Your task to perform on an android device: turn smart compose on in the gmail app Image 0: 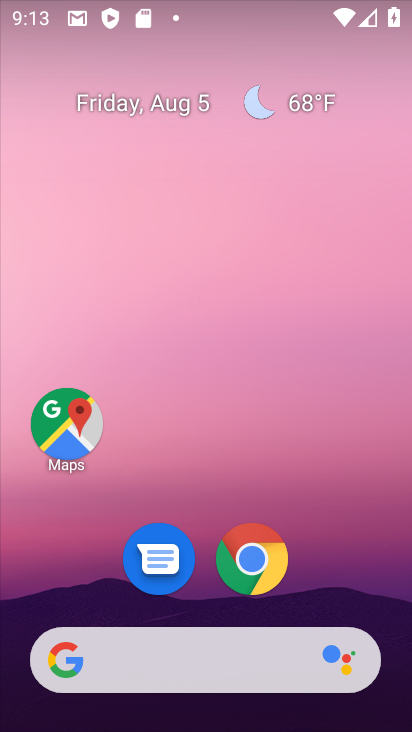
Step 0: drag from (256, 606) to (281, 106)
Your task to perform on an android device: turn smart compose on in the gmail app Image 1: 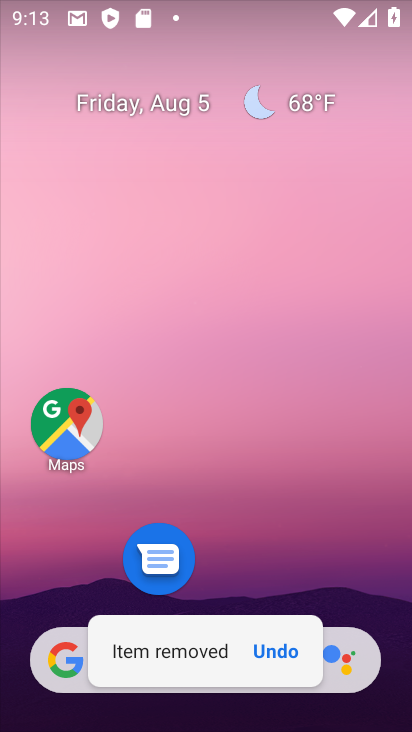
Step 1: drag from (279, 526) to (280, 115)
Your task to perform on an android device: turn smart compose on in the gmail app Image 2: 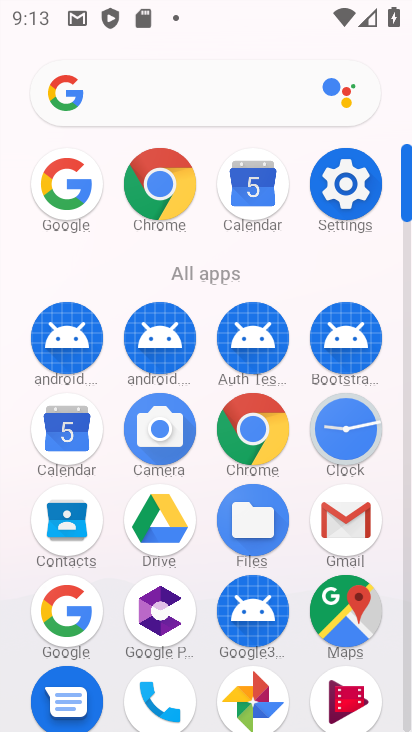
Step 2: click (344, 533)
Your task to perform on an android device: turn smart compose on in the gmail app Image 3: 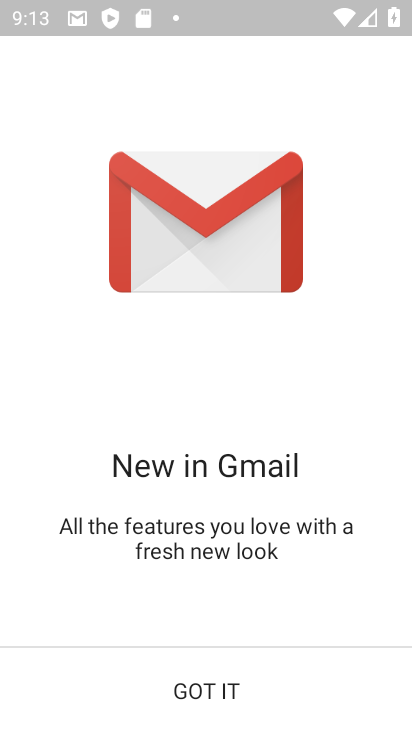
Step 3: click (211, 696)
Your task to perform on an android device: turn smart compose on in the gmail app Image 4: 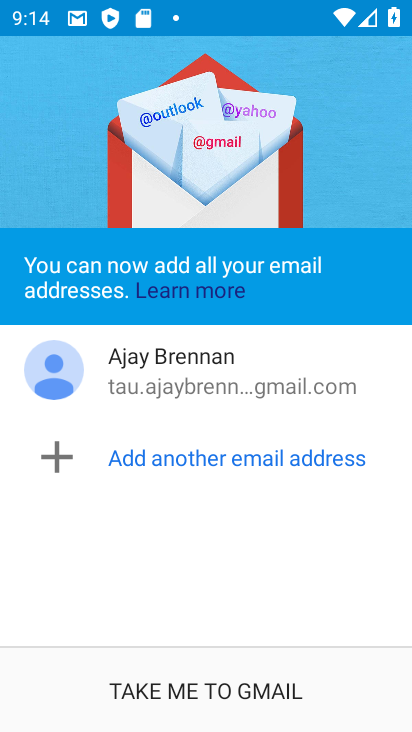
Step 4: click (208, 693)
Your task to perform on an android device: turn smart compose on in the gmail app Image 5: 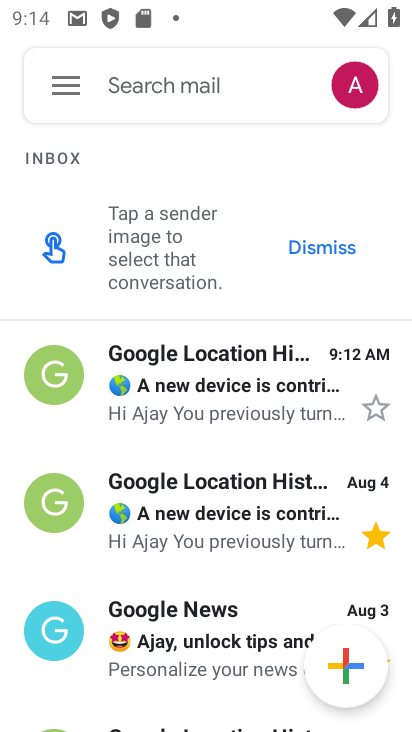
Step 5: click (61, 91)
Your task to perform on an android device: turn smart compose on in the gmail app Image 6: 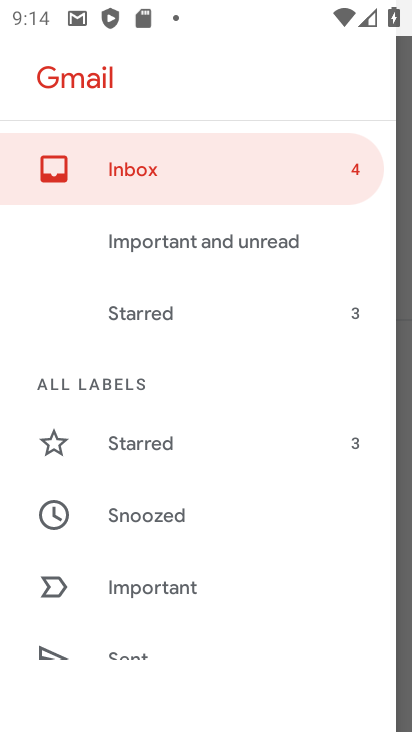
Step 6: drag from (199, 580) to (264, 123)
Your task to perform on an android device: turn smart compose on in the gmail app Image 7: 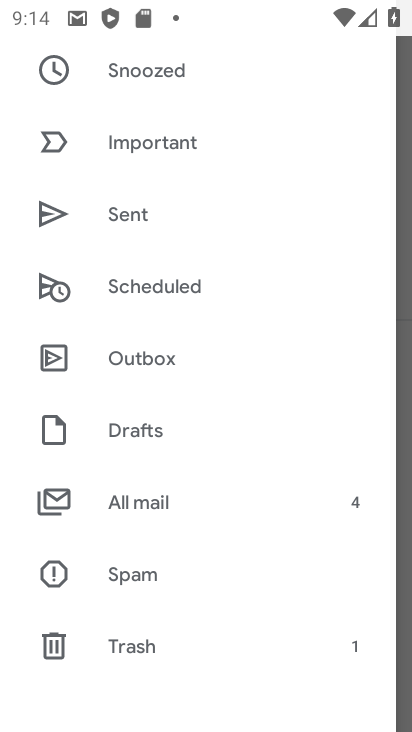
Step 7: drag from (205, 529) to (236, 193)
Your task to perform on an android device: turn smart compose on in the gmail app Image 8: 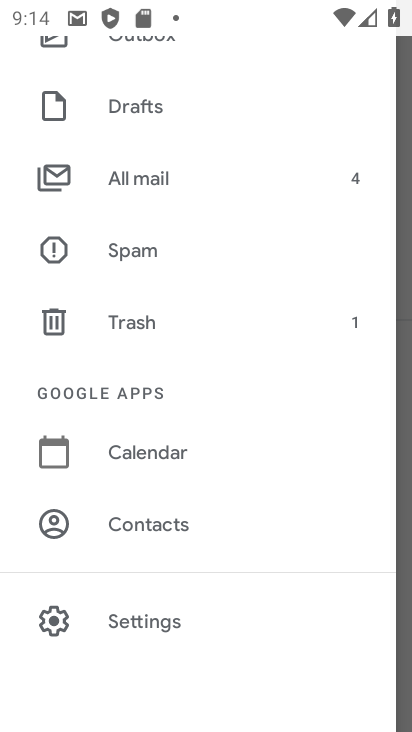
Step 8: drag from (205, 455) to (227, 111)
Your task to perform on an android device: turn smart compose on in the gmail app Image 9: 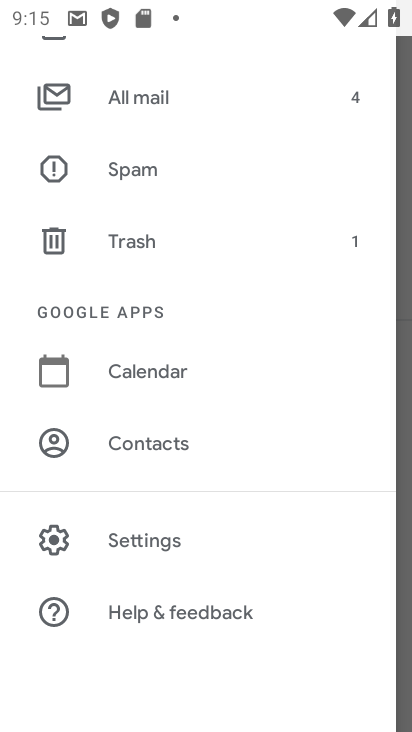
Step 9: click (143, 533)
Your task to perform on an android device: turn smart compose on in the gmail app Image 10: 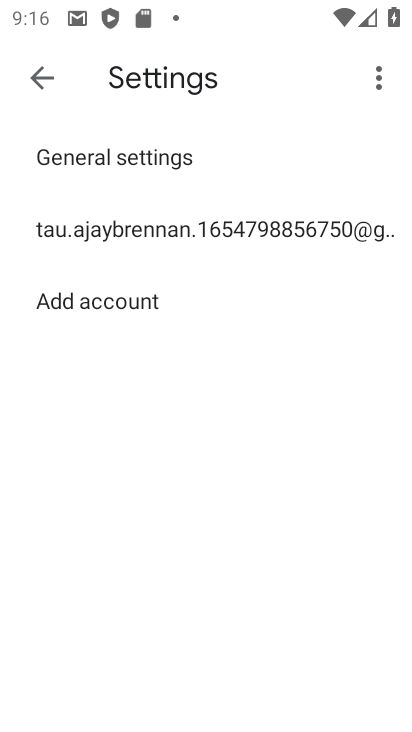
Step 10: click (150, 217)
Your task to perform on an android device: turn smart compose on in the gmail app Image 11: 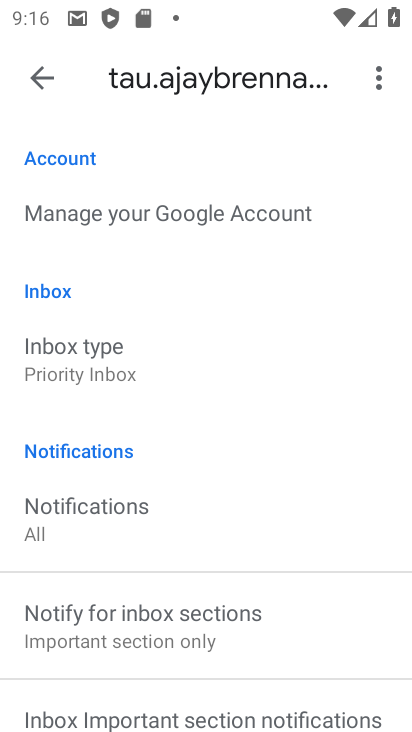
Step 11: task complete